Your task to perform on an android device: Do I have any events tomorrow? Image 0: 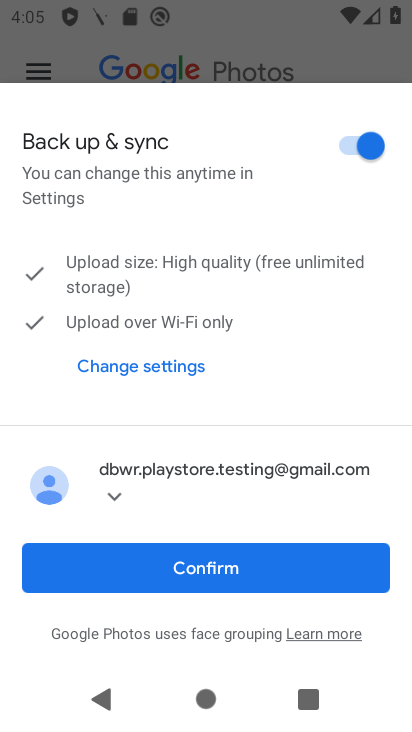
Step 0: press home button
Your task to perform on an android device: Do I have any events tomorrow? Image 1: 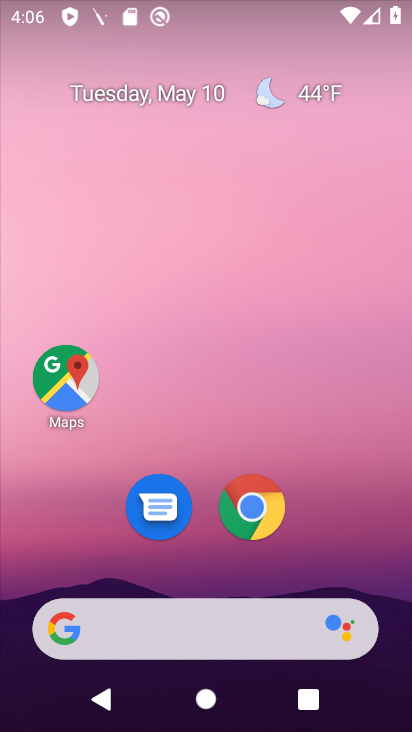
Step 1: drag from (224, 591) to (312, 154)
Your task to perform on an android device: Do I have any events tomorrow? Image 2: 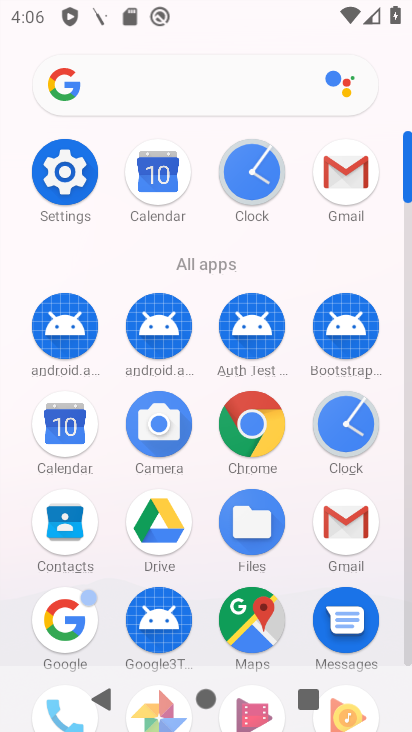
Step 2: click (80, 411)
Your task to perform on an android device: Do I have any events tomorrow? Image 3: 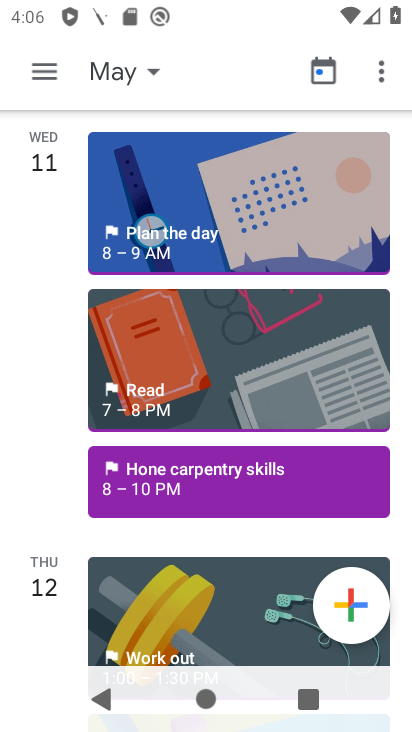
Step 3: task complete